Your task to perform on an android device: Is it going to rain this weekend? Image 0: 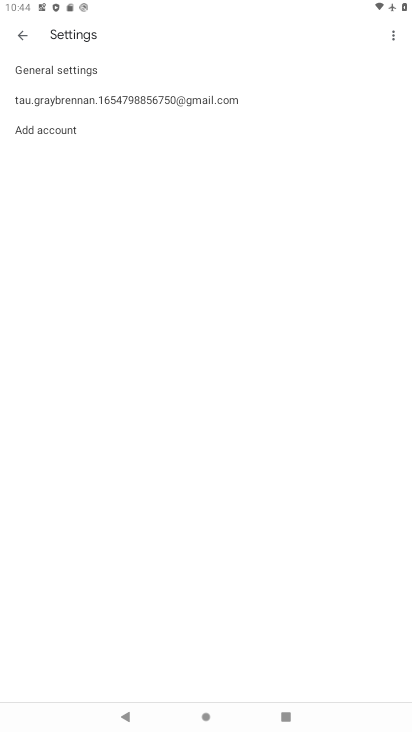
Step 0: task complete